Your task to perform on an android device: Search for vegetarian restaurants on Maps Image 0: 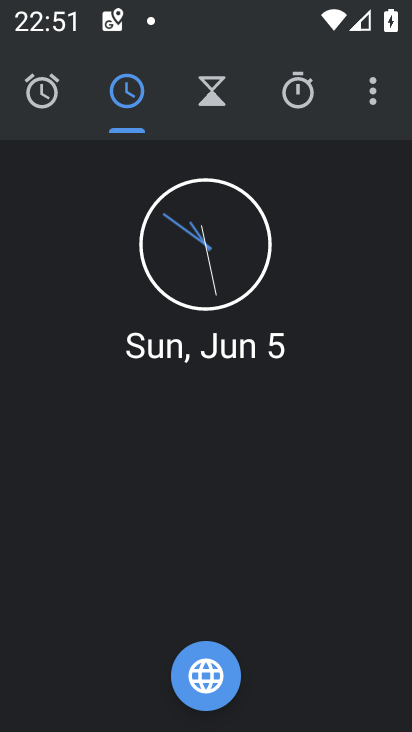
Step 0: press home button
Your task to perform on an android device: Search for vegetarian restaurants on Maps Image 1: 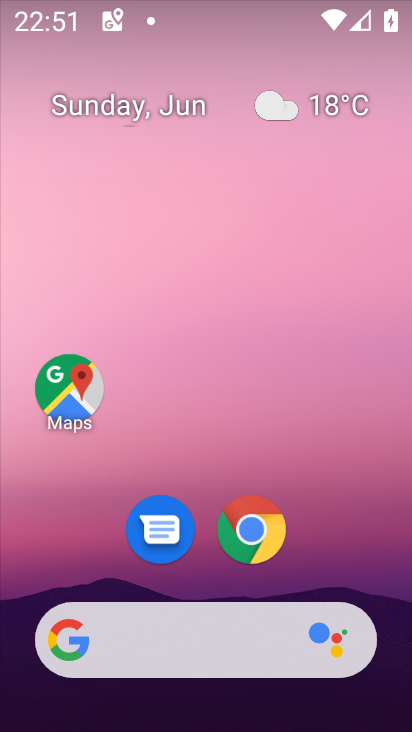
Step 1: click (91, 413)
Your task to perform on an android device: Search for vegetarian restaurants on Maps Image 2: 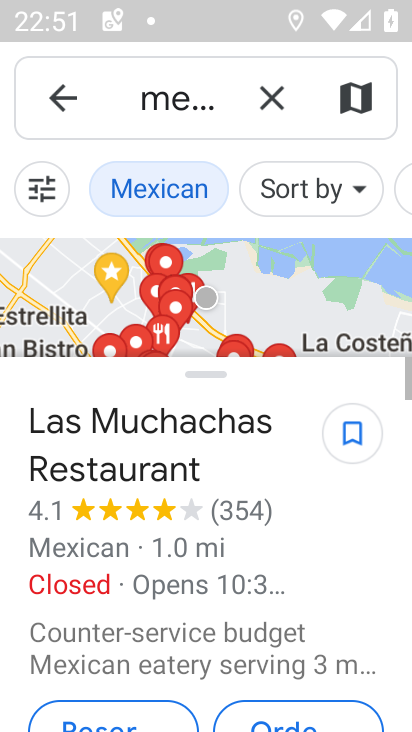
Step 2: click (286, 99)
Your task to perform on an android device: Search for vegetarian restaurants on Maps Image 3: 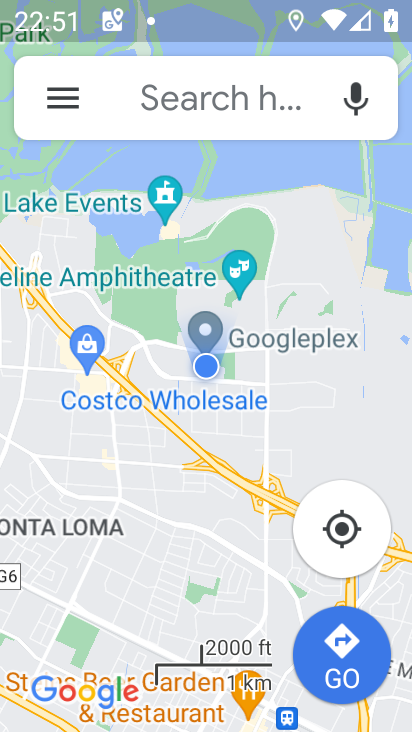
Step 3: click (281, 104)
Your task to perform on an android device: Search for vegetarian restaurants on Maps Image 4: 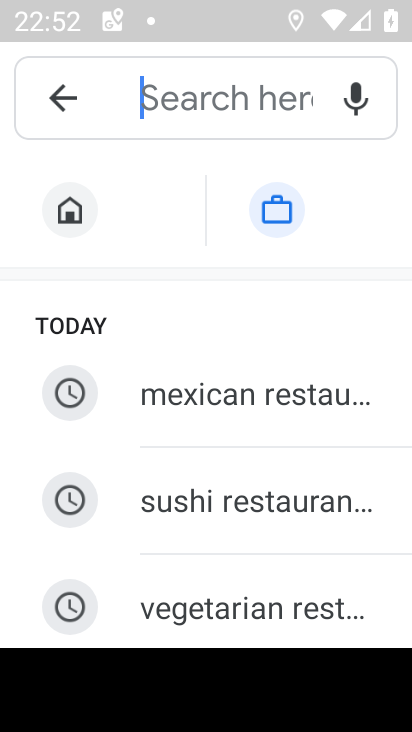
Step 4: type "vegetarian restaurants"
Your task to perform on an android device: Search for vegetarian restaurants on Maps Image 5: 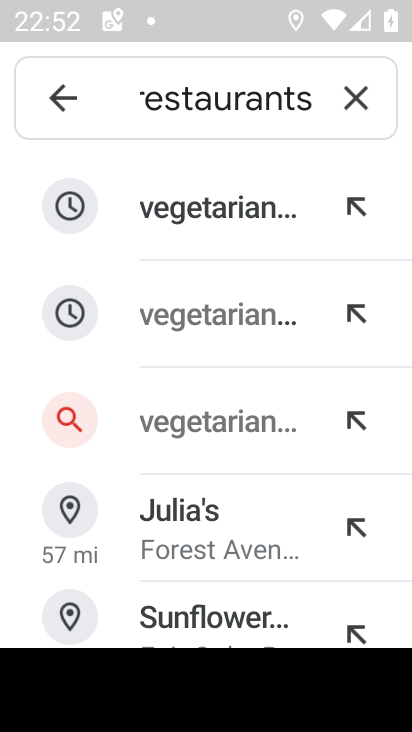
Step 5: click (195, 197)
Your task to perform on an android device: Search for vegetarian restaurants on Maps Image 6: 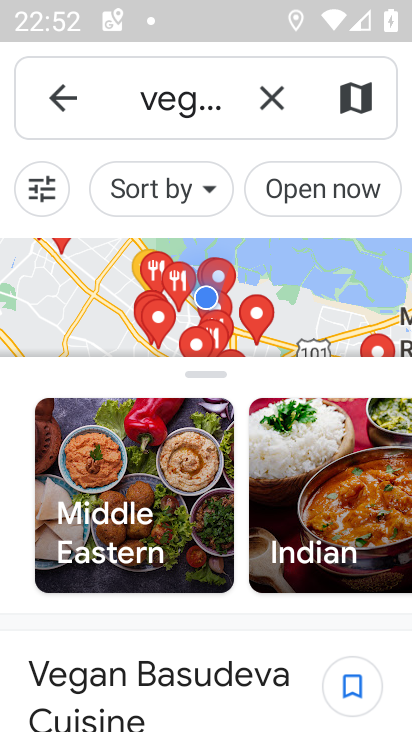
Step 6: task complete